Your task to perform on an android device: turn notification dots off Image 0: 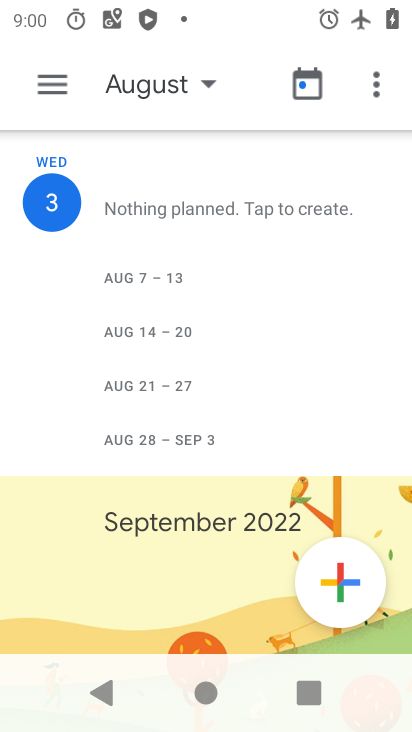
Step 0: press home button
Your task to perform on an android device: turn notification dots off Image 1: 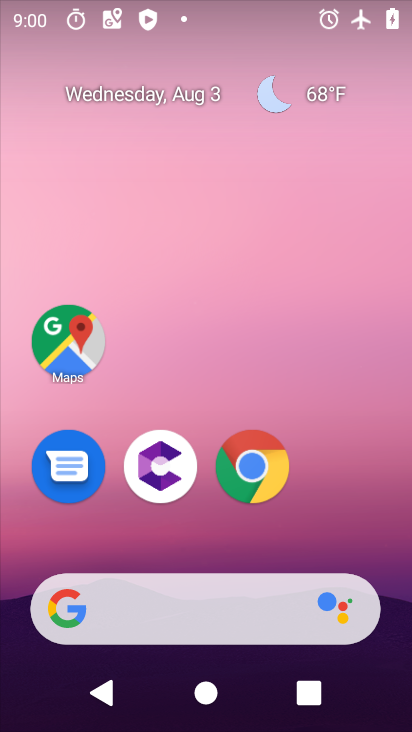
Step 1: drag from (300, 497) to (329, 5)
Your task to perform on an android device: turn notification dots off Image 2: 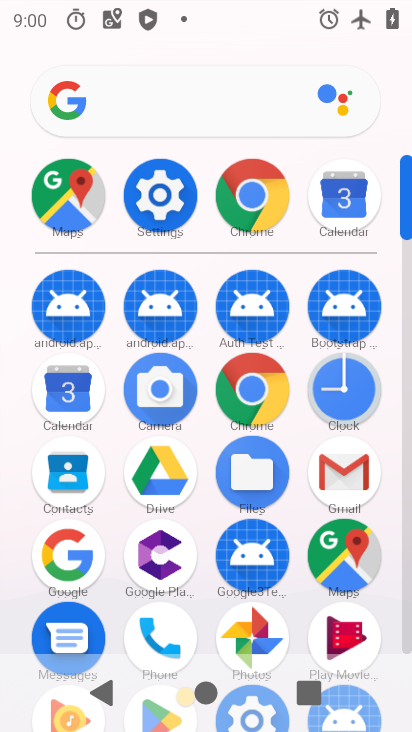
Step 2: click (162, 184)
Your task to perform on an android device: turn notification dots off Image 3: 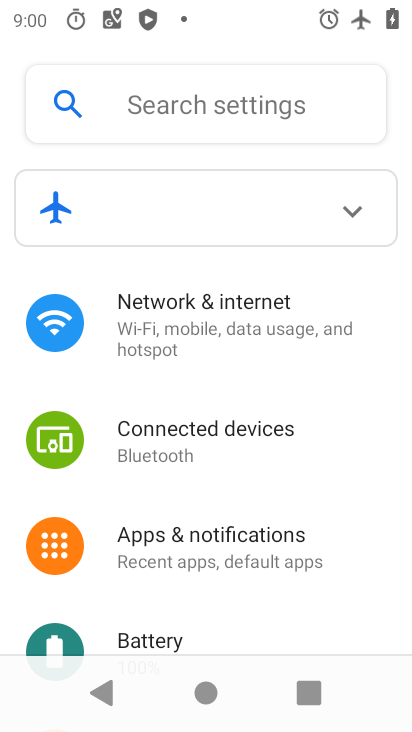
Step 3: click (239, 559)
Your task to perform on an android device: turn notification dots off Image 4: 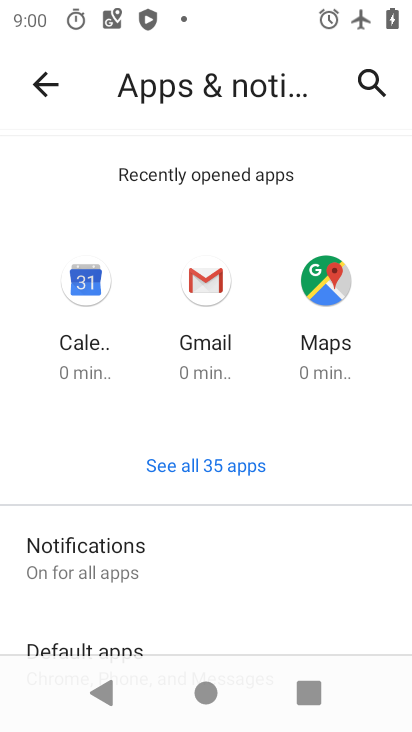
Step 4: click (84, 553)
Your task to perform on an android device: turn notification dots off Image 5: 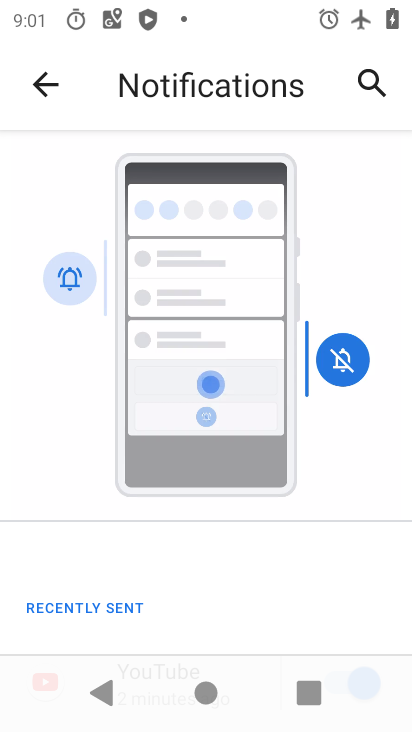
Step 5: drag from (267, 581) to (332, 54)
Your task to perform on an android device: turn notification dots off Image 6: 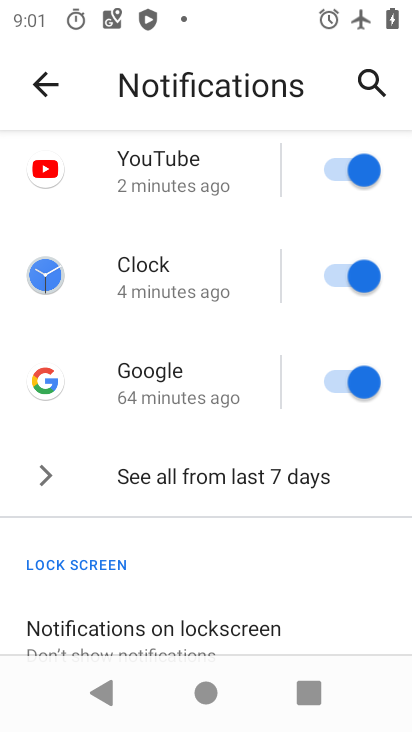
Step 6: drag from (301, 568) to (378, 174)
Your task to perform on an android device: turn notification dots off Image 7: 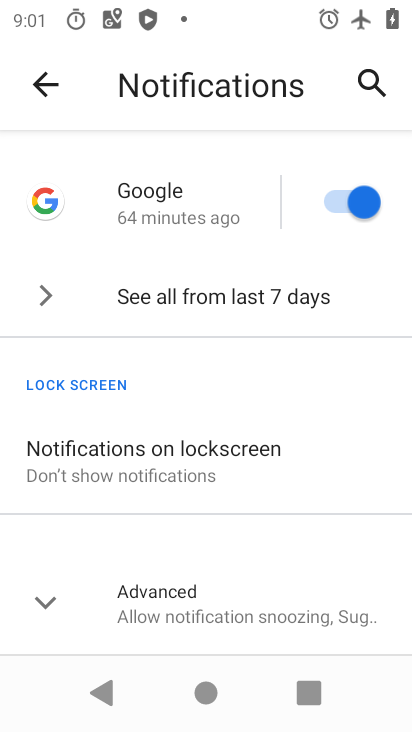
Step 7: click (192, 595)
Your task to perform on an android device: turn notification dots off Image 8: 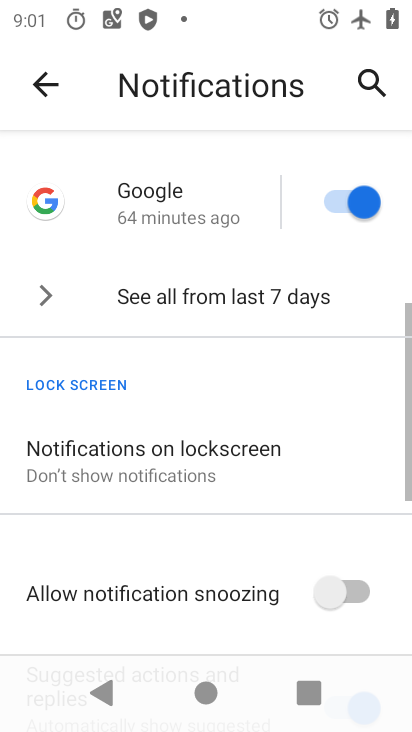
Step 8: drag from (258, 528) to (371, 140)
Your task to perform on an android device: turn notification dots off Image 9: 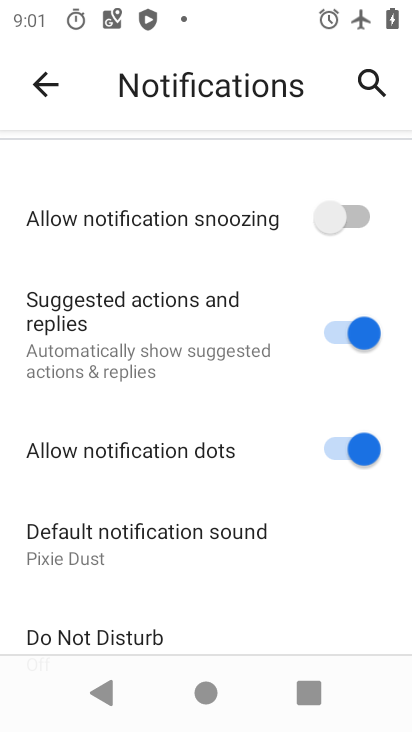
Step 9: click (346, 441)
Your task to perform on an android device: turn notification dots off Image 10: 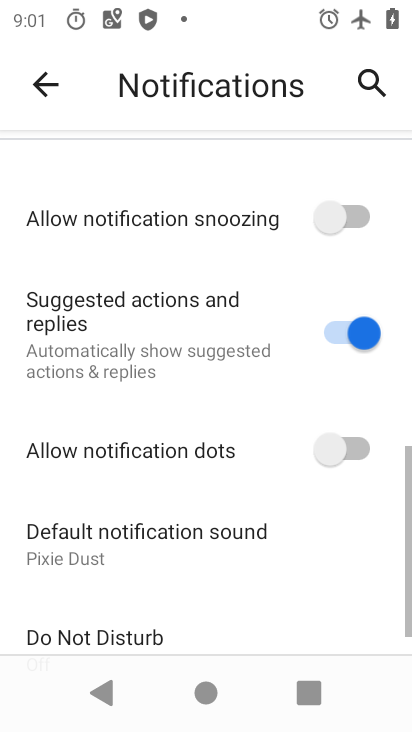
Step 10: task complete